Your task to perform on an android device: read, delete, or share a saved page in the chrome app Image 0: 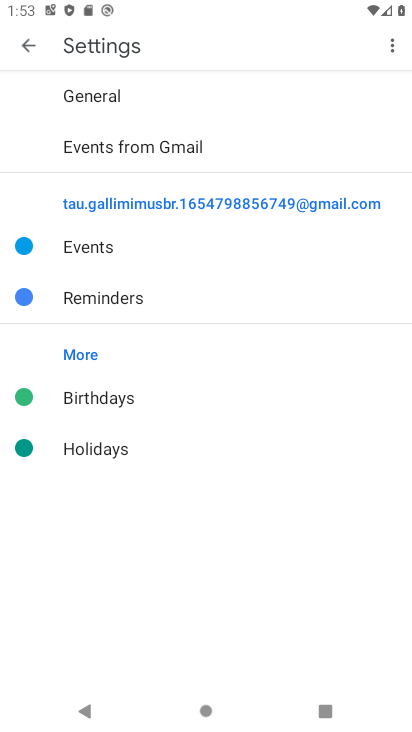
Step 0: press home button
Your task to perform on an android device: read, delete, or share a saved page in the chrome app Image 1: 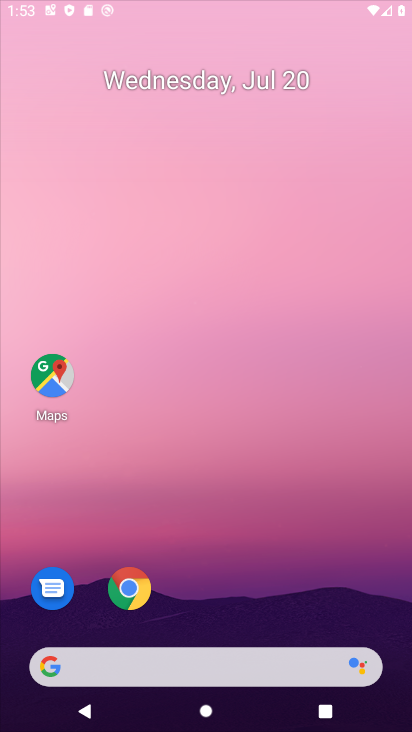
Step 1: drag from (400, 673) to (245, 2)
Your task to perform on an android device: read, delete, or share a saved page in the chrome app Image 2: 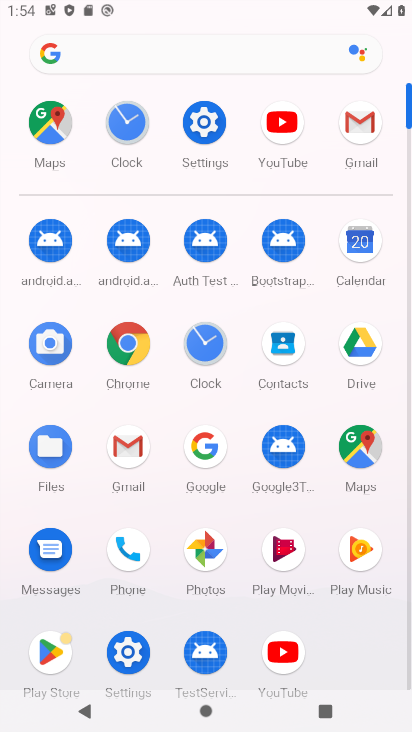
Step 2: click (132, 345)
Your task to perform on an android device: read, delete, or share a saved page in the chrome app Image 3: 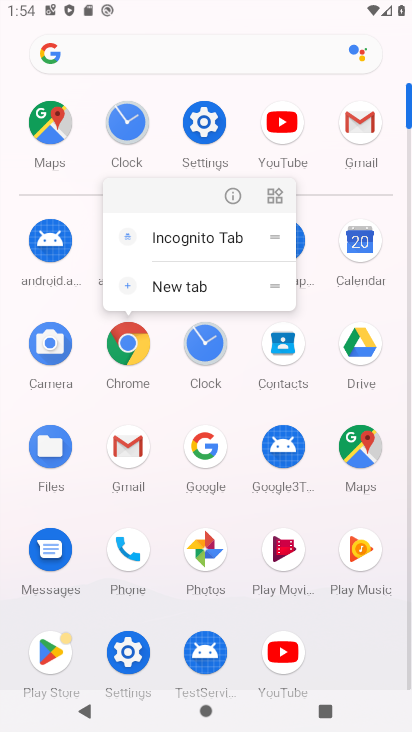
Step 3: click (131, 352)
Your task to perform on an android device: read, delete, or share a saved page in the chrome app Image 4: 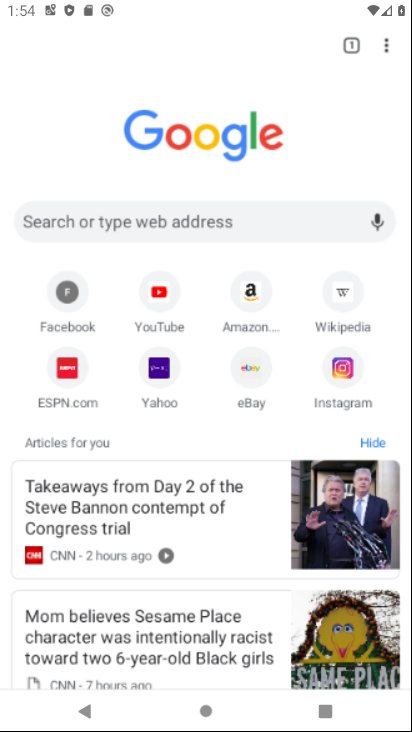
Step 4: task complete